Your task to perform on an android device: Find coffee shops on Maps Image 0: 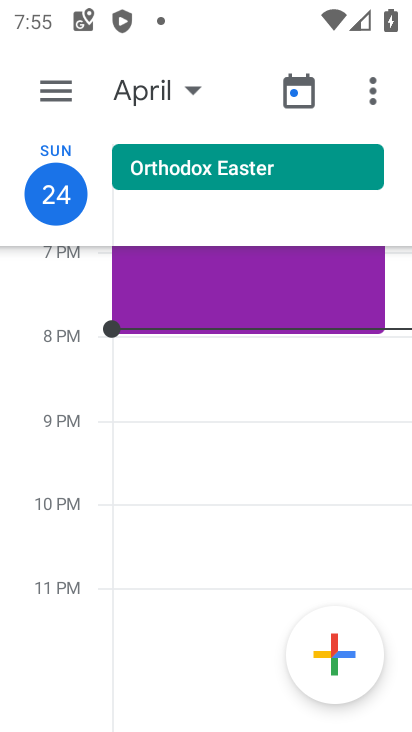
Step 0: press home button
Your task to perform on an android device: Find coffee shops on Maps Image 1: 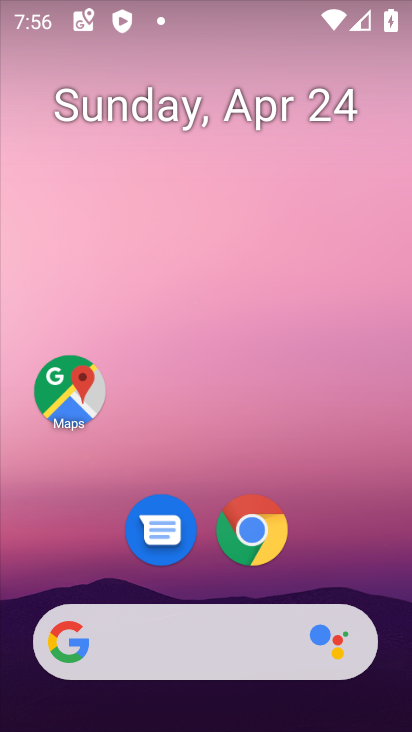
Step 1: click (43, 372)
Your task to perform on an android device: Find coffee shops on Maps Image 2: 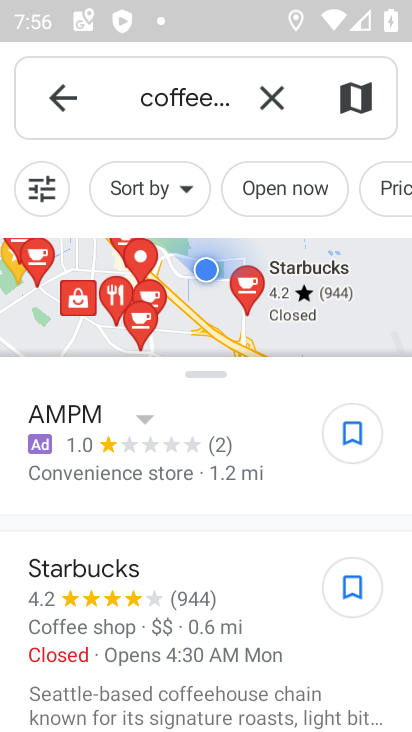
Step 2: task complete